Your task to perform on an android device: turn on location history Image 0: 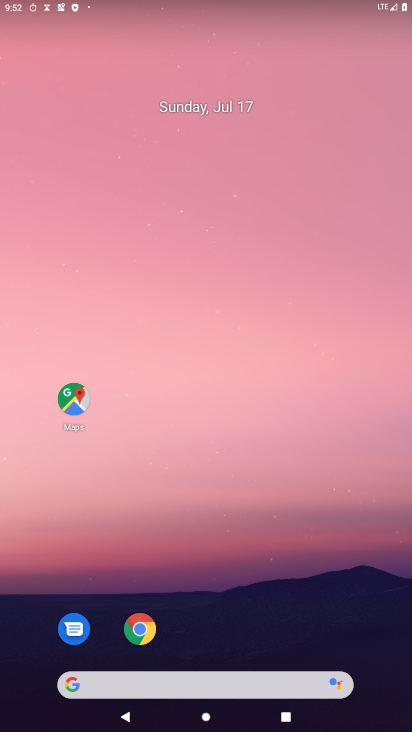
Step 0: drag from (226, 724) to (230, 98)
Your task to perform on an android device: turn on location history Image 1: 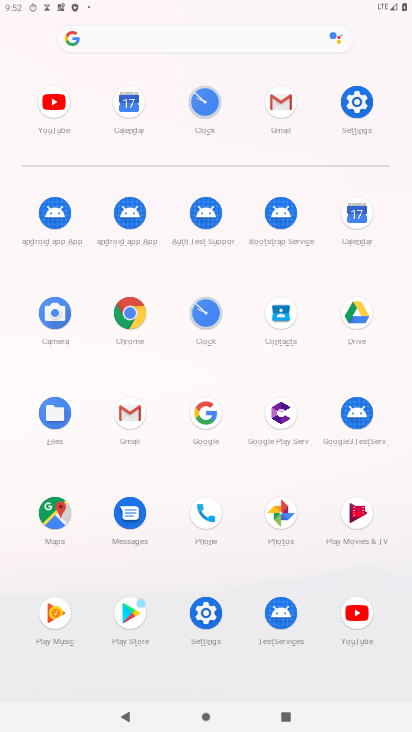
Step 1: click (352, 107)
Your task to perform on an android device: turn on location history Image 2: 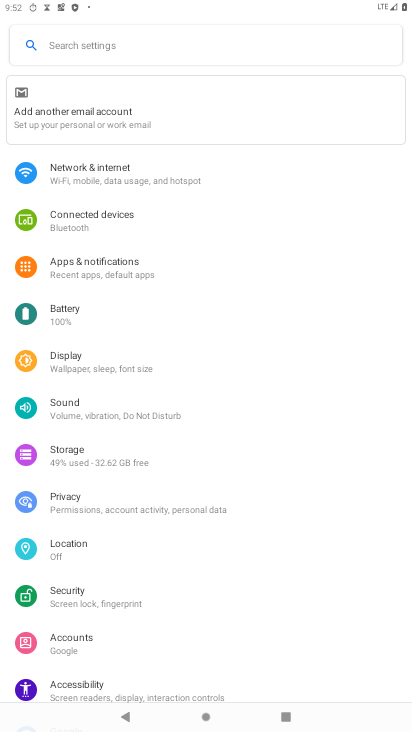
Step 2: click (65, 543)
Your task to perform on an android device: turn on location history Image 3: 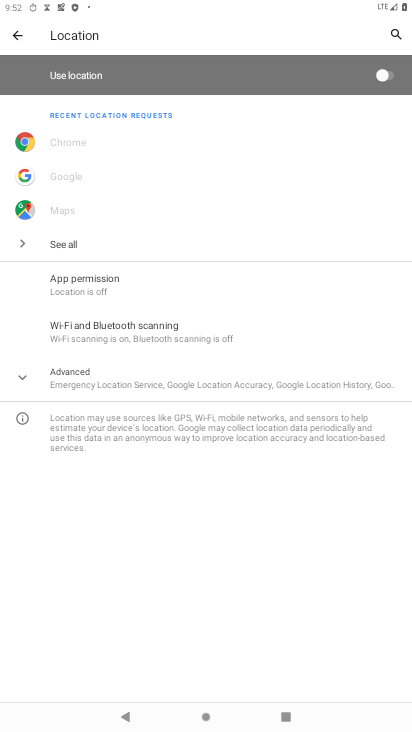
Step 3: click (89, 376)
Your task to perform on an android device: turn on location history Image 4: 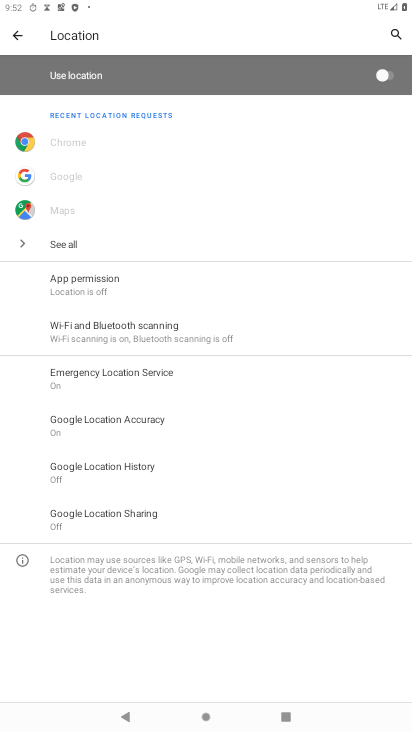
Step 4: click (126, 468)
Your task to perform on an android device: turn on location history Image 5: 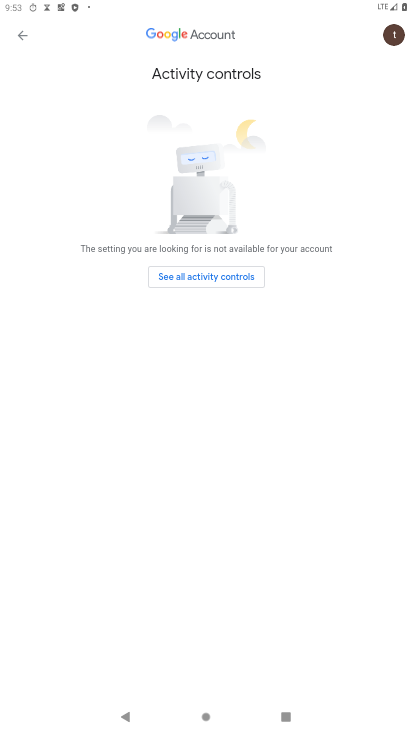
Step 5: click (204, 275)
Your task to perform on an android device: turn on location history Image 6: 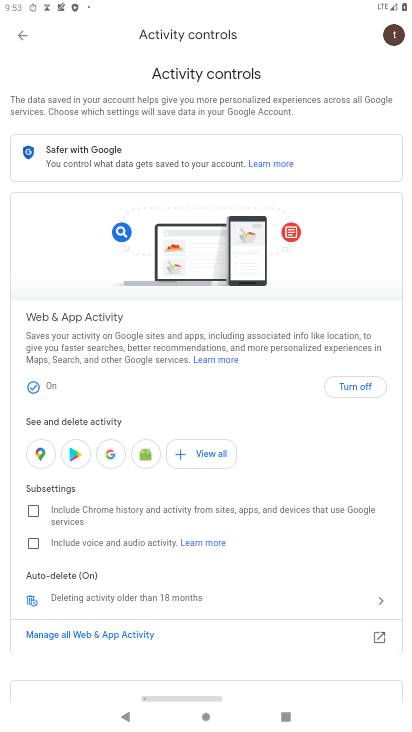
Step 6: task complete